Your task to perform on an android device: What is the recent news? Image 0: 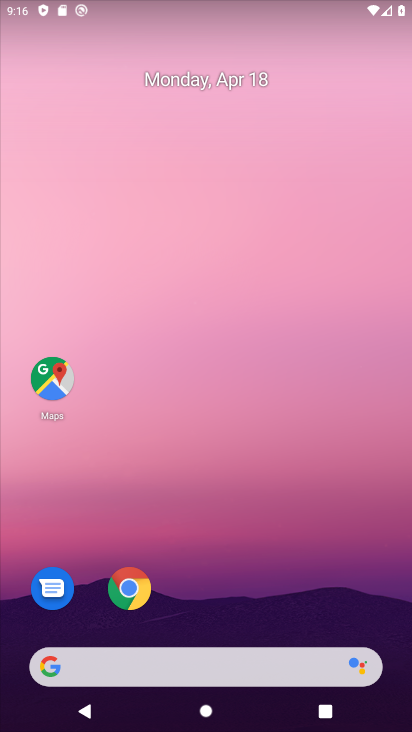
Step 0: drag from (293, 614) to (291, 59)
Your task to perform on an android device: What is the recent news? Image 1: 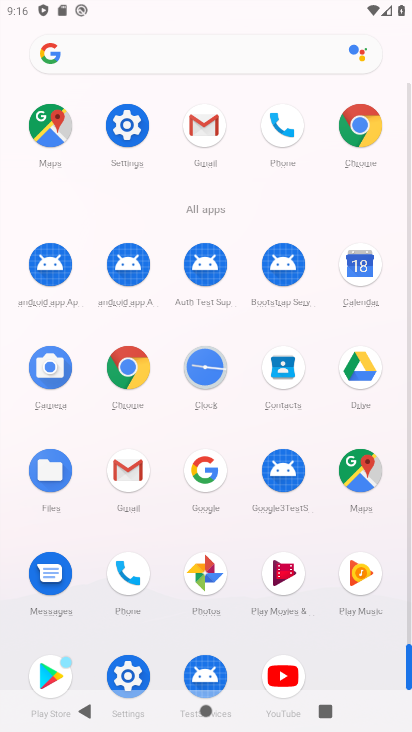
Step 1: click (131, 358)
Your task to perform on an android device: What is the recent news? Image 2: 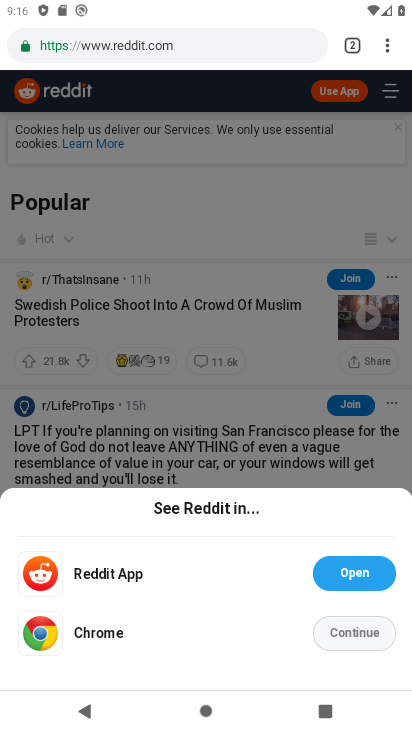
Step 2: drag from (389, 43) to (240, 95)
Your task to perform on an android device: What is the recent news? Image 3: 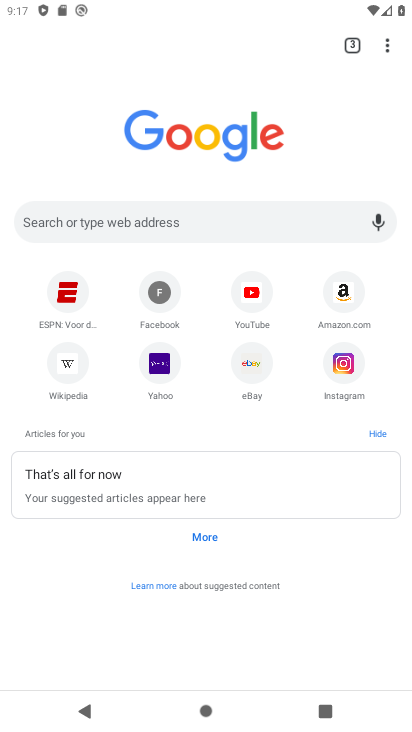
Step 3: click (267, 218)
Your task to perform on an android device: What is the recent news? Image 4: 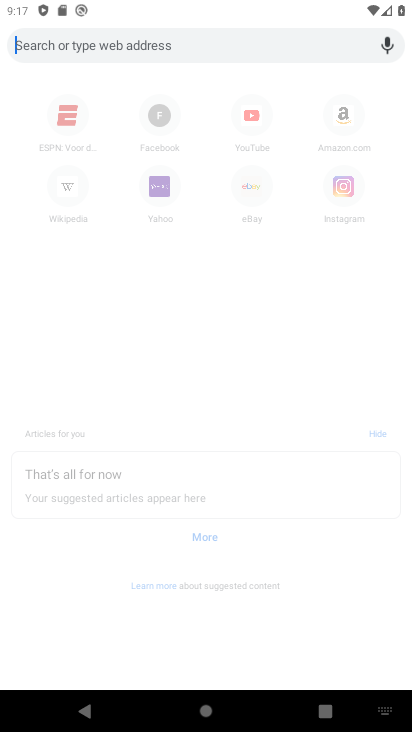
Step 4: type "recent news?"
Your task to perform on an android device: What is the recent news? Image 5: 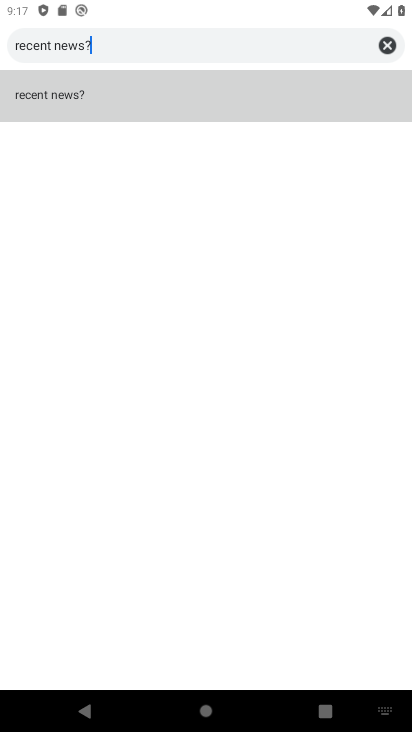
Step 5: click (54, 89)
Your task to perform on an android device: What is the recent news? Image 6: 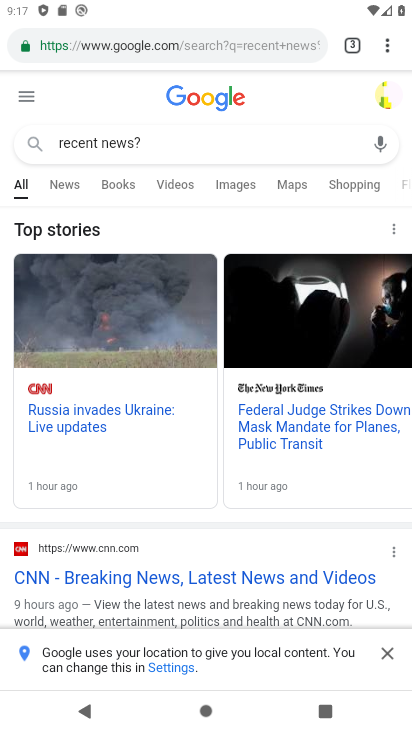
Step 6: click (58, 178)
Your task to perform on an android device: What is the recent news? Image 7: 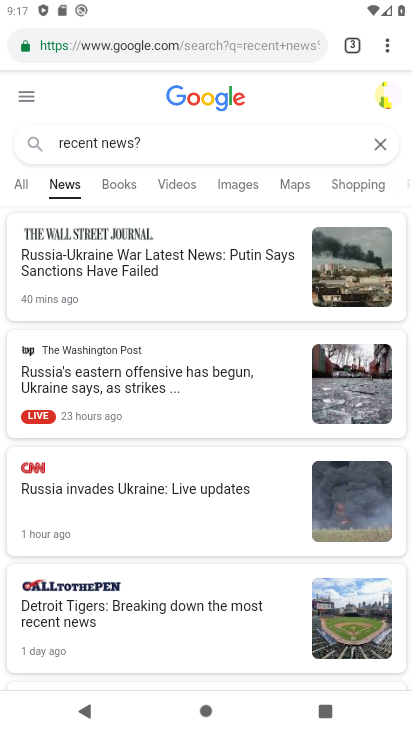
Step 7: task complete